Your task to perform on an android device: open chrome privacy settings Image 0: 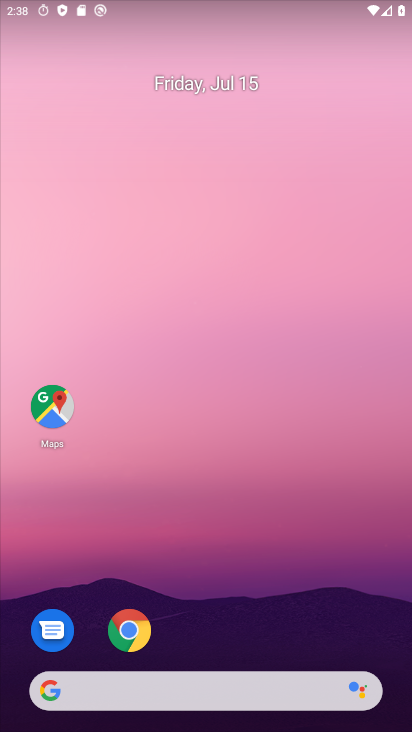
Step 0: click (132, 628)
Your task to perform on an android device: open chrome privacy settings Image 1: 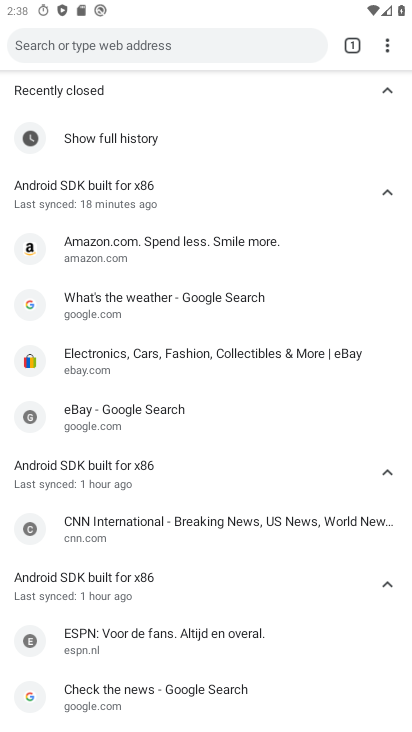
Step 1: click (394, 51)
Your task to perform on an android device: open chrome privacy settings Image 2: 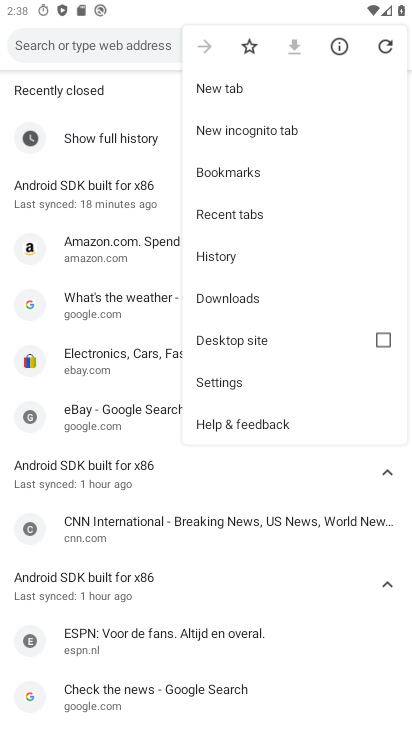
Step 2: click (224, 391)
Your task to perform on an android device: open chrome privacy settings Image 3: 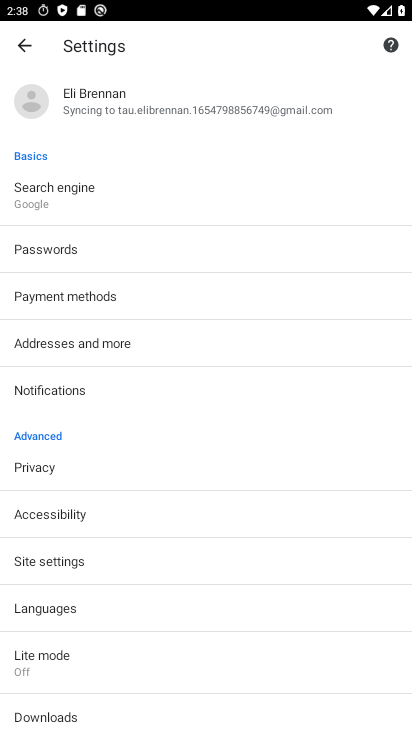
Step 3: click (69, 476)
Your task to perform on an android device: open chrome privacy settings Image 4: 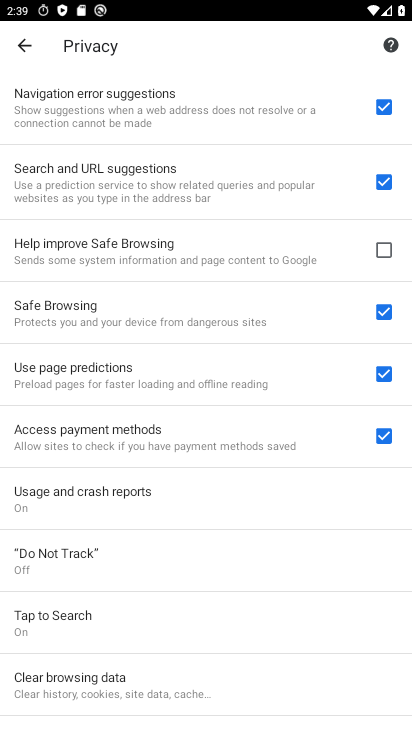
Step 4: task complete